Your task to perform on an android device: install app "Indeed Job Search" Image 0: 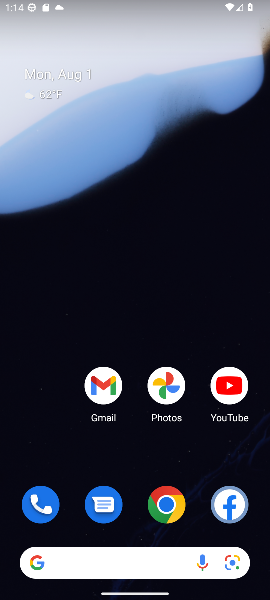
Step 0: drag from (122, 542) to (201, 189)
Your task to perform on an android device: install app "Indeed Job Search" Image 1: 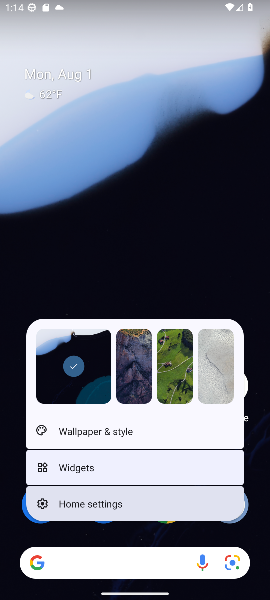
Step 1: click (186, 189)
Your task to perform on an android device: install app "Indeed Job Search" Image 2: 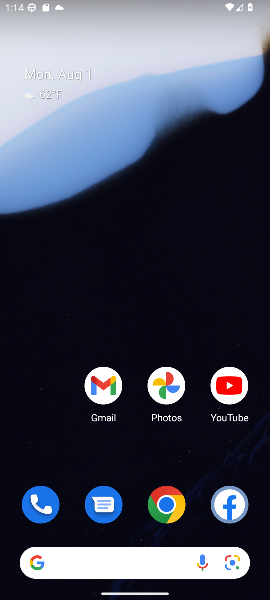
Step 2: drag from (70, 546) to (2, 131)
Your task to perform on an android device: install app "Indeed Job Search" Image 3: 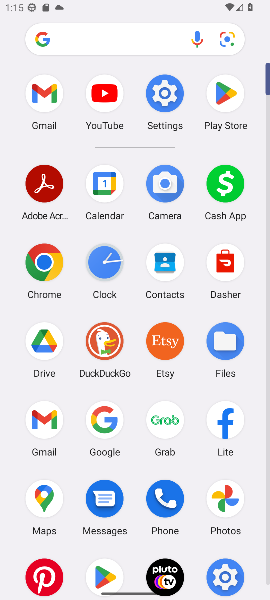
Step 3: click (224, 95)
Your task to perform on an android device: install app "Indeed Job Search" Image 4: 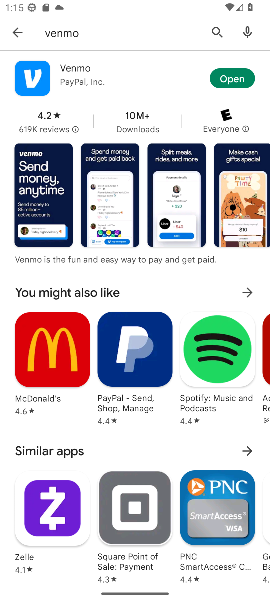
Step 4: click (215, 26)
Your task to perform on an android device: install app "Indeed Job Search" Image 5: 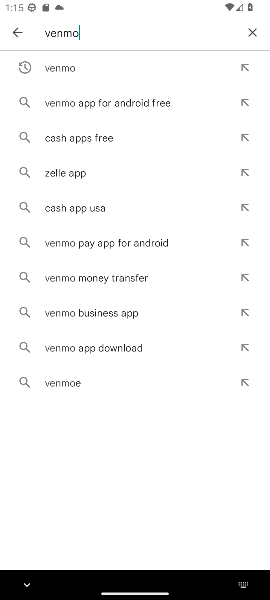
Step 5: click (254, 31)
Your task to perform on an android device: install app "Indeed Job Search" Image 6: 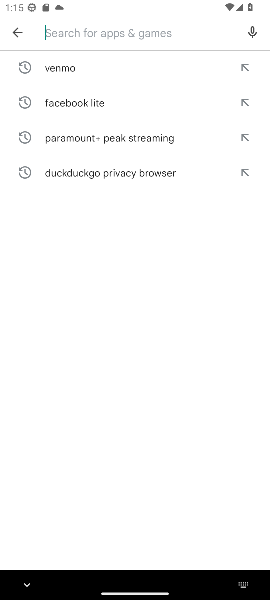
Step 6: type "indeed job search"
Your task to perform on an android device: install app "Indeed Job Search" Image 7: 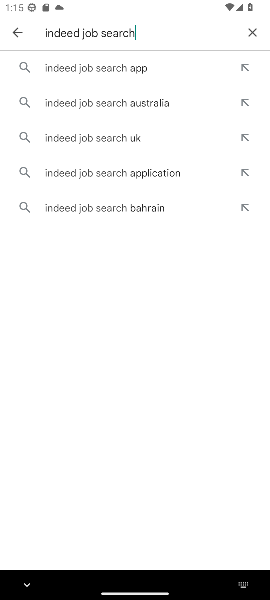
Step 7: click (149, 67)
Your task to perform on an android device: install app "Indeed Job Search" Image 8: 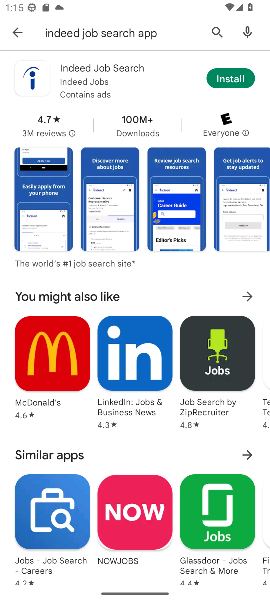
Step 8: click (246, 80)
Your task to perform on an android device: install app "Indeed Job Search" Image 9: 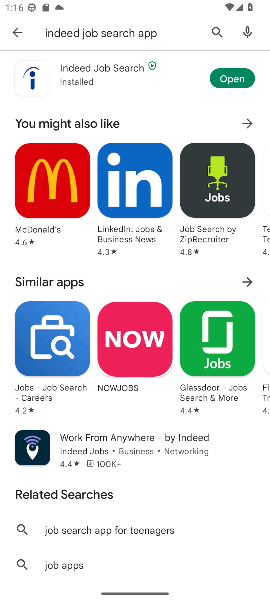
Step 9: task complete